Your task to perform on an android device: Go to Android settings Image 0: 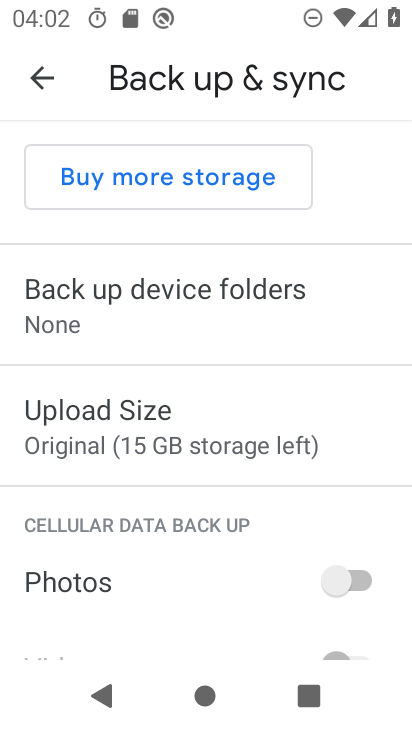
Step 0: press back button
Your task to perform on an android device: Go to Android settings Image 1: 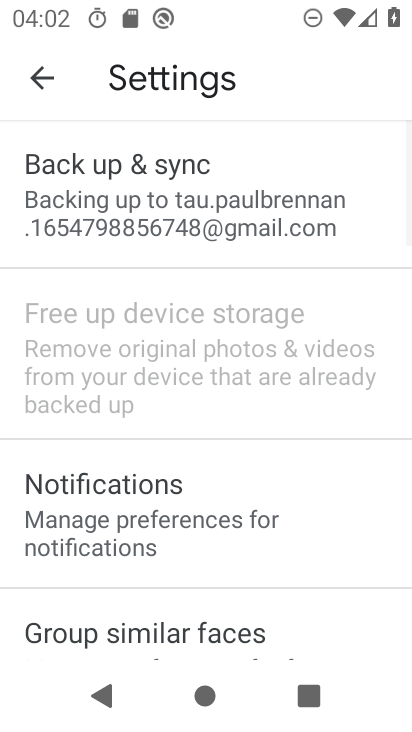
Step 1: press back button
Your task to perform on an android device: Go to Android settings Image 2: 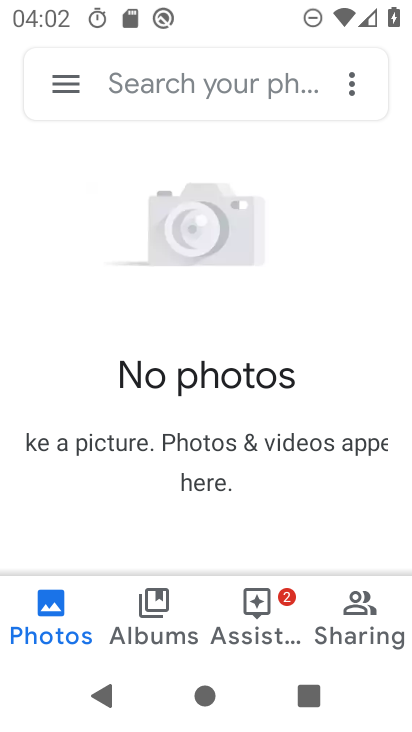
Step 2: press back button
Your task to perform on an android device: Go to Android settings Image 3: 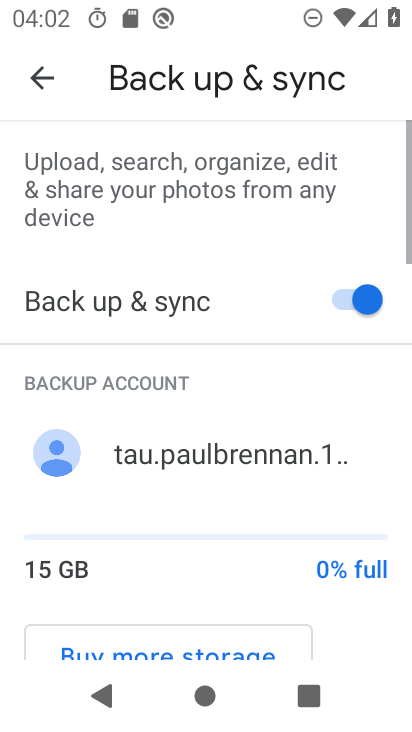
Step 3: press back button
Your task to perform on an android device: Go to Android settings Image 4: 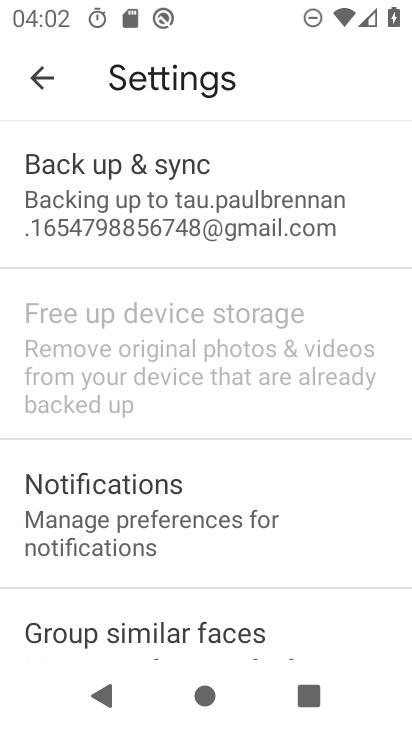
Step 4: press back button
Your task to perform on an android device: Go to Android settings Image 5: 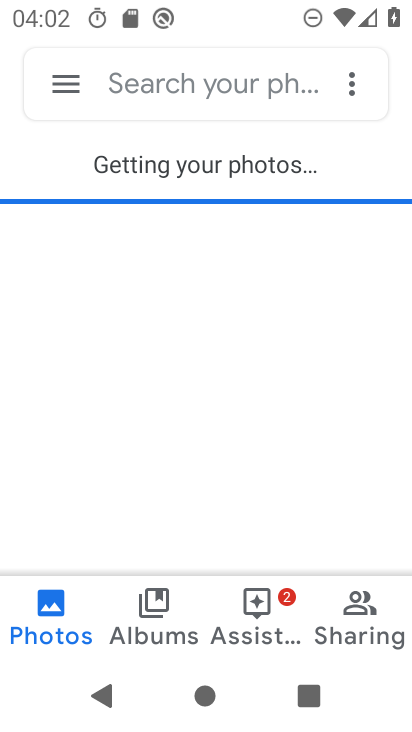
Step 5: press back button
Your task to perform on an android device: Go to Android settings Image 6: 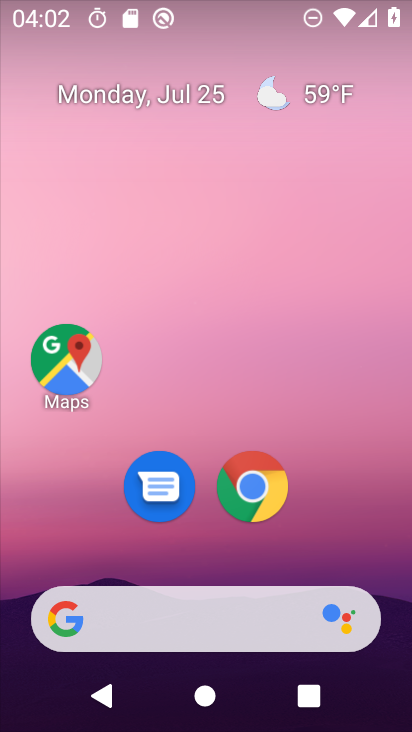
Step 6: drag from (143, 554) to (269, 0)
Your task to perform on an android device: Go to Android settings Image 7: 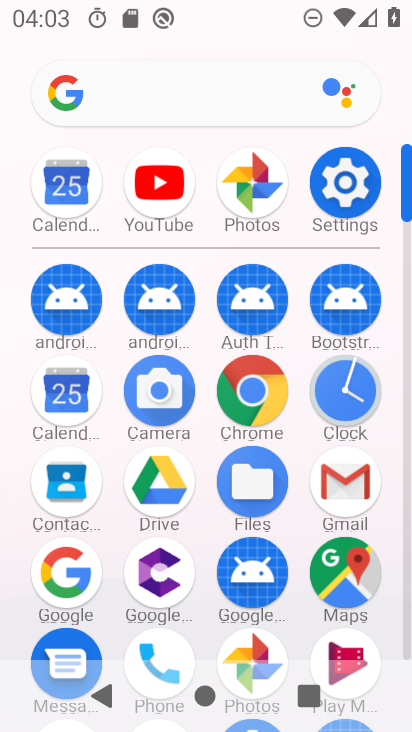
Step 7: click (336, 192)
Your task to perform on an android device: Go to Android settings Image 8: 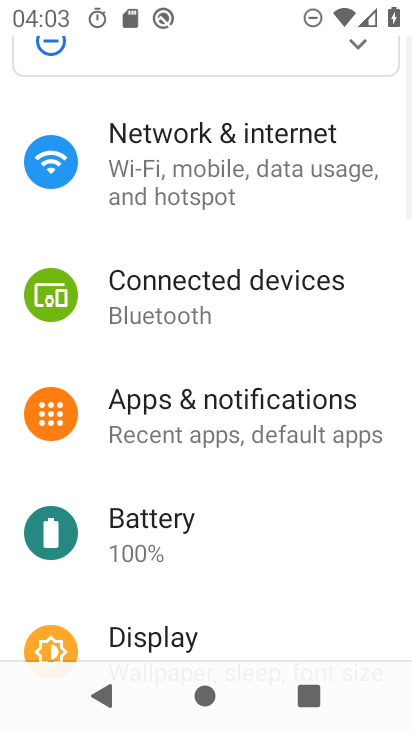
Step 8: drag from (125, 606) to (364, 10)
Your task to perform on an android device: Go to Android settings Image 9: 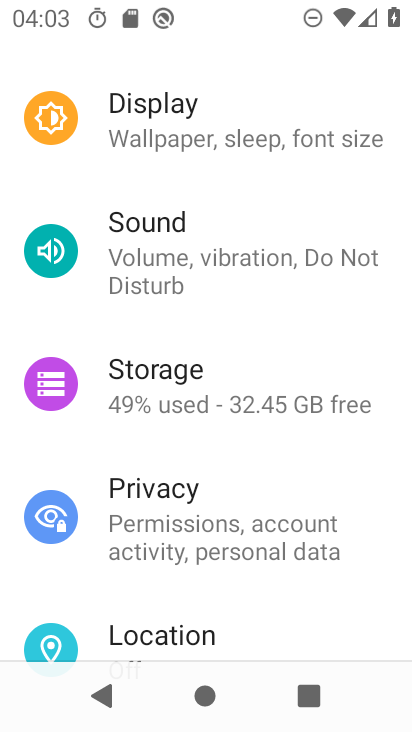
Step 9: drag from (121, 621) to (293, 41)
Your task to perform on an android device: Go to Android settings Image 10: 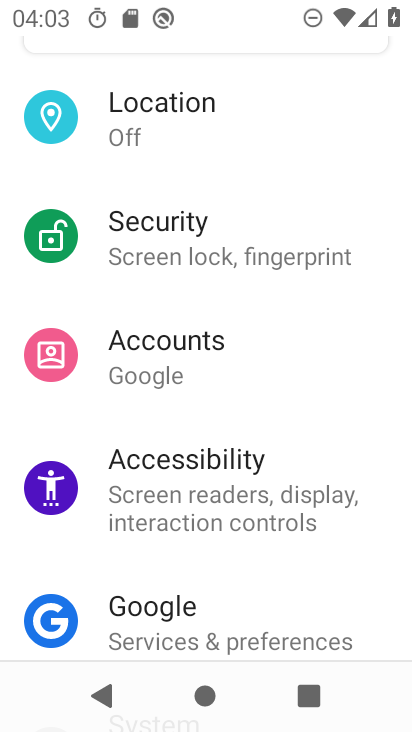
Step 10: drag from (153, 598) to (291, 28)
Your task to perform on an android device: Go to Android settings Image 11: 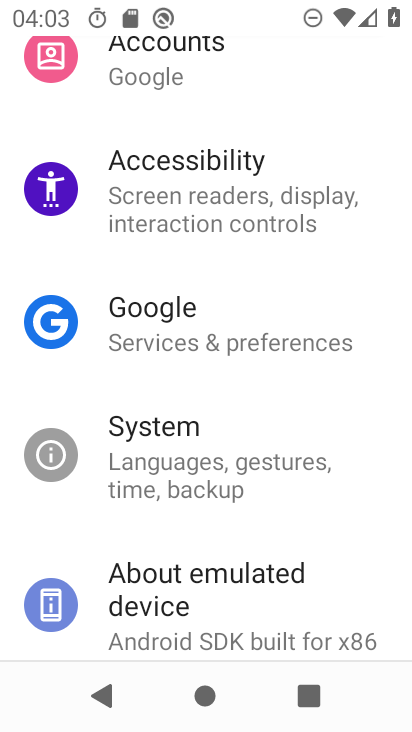
Step 11: click (175, 599)
Your task to perform on an android device: Go to Android settings Image 12: 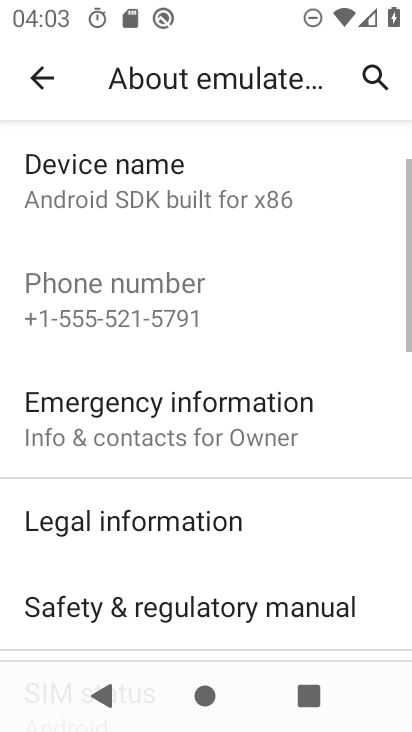
Step 12: drag from (160, 577) to (258, 7)
Your task to perform on an android device: Go to Android settings Image 13: 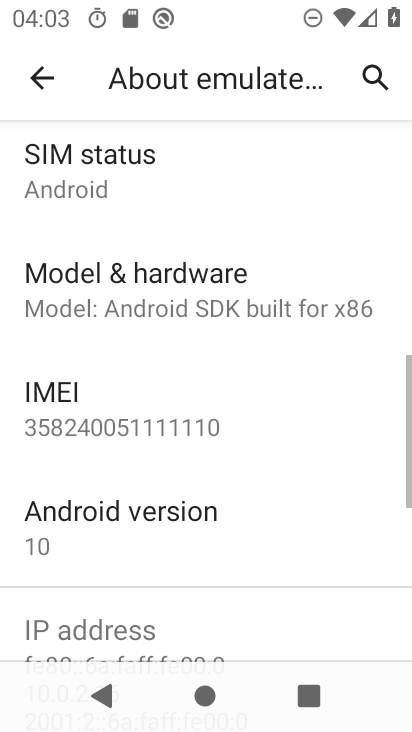
Step 13: click (148, 516)
Your task to perform on an android device: Go to Android settings Image 14: 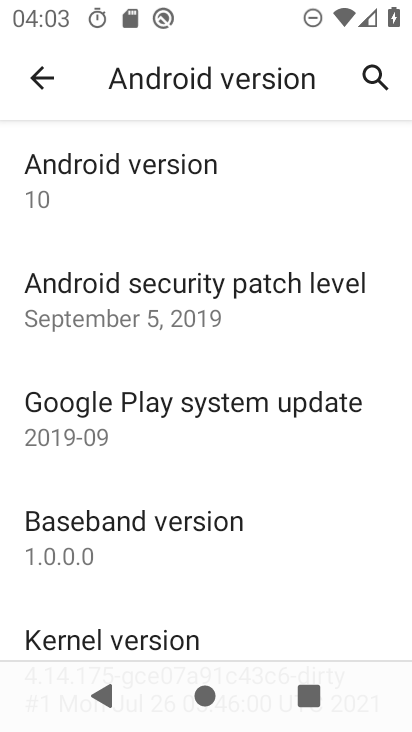
Step 14: task complete